Your task to perform on an android device: Open the calendar and show me this week's events? Image 0: 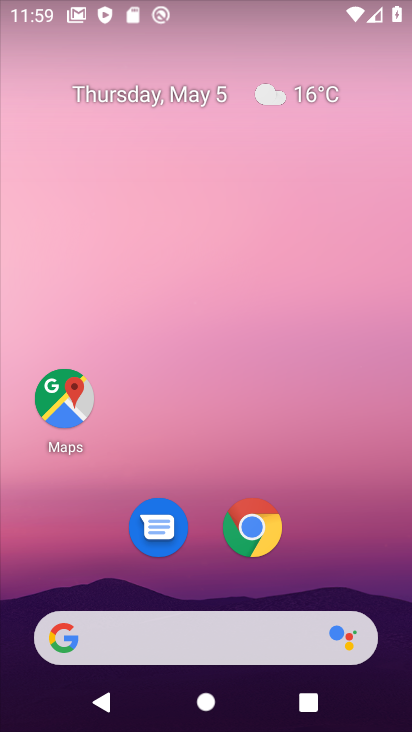
Step 0: drag from (305, 466) to (102, 69)
Your task to perform on an android device: Open the calendar and show me this week's events? Image 1: 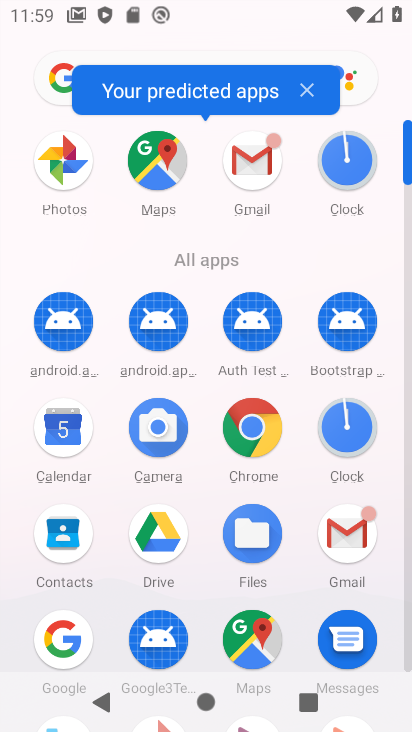
Step 1: click (61, 436)
Your task to perform on an android device: Open the calendar and show me this week's events? Image 2: 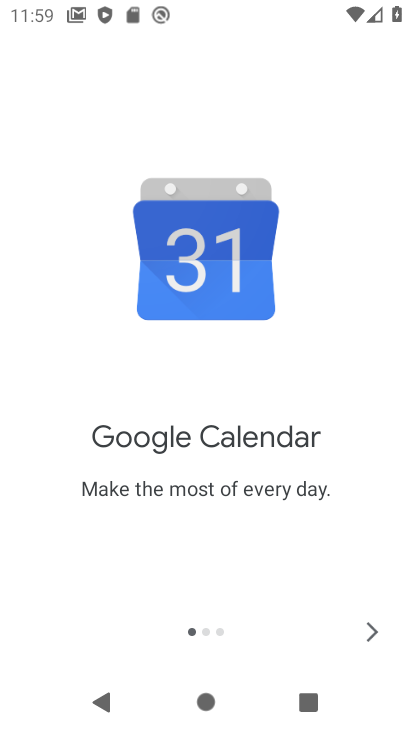
Step 2: click (356, 637)
Your task to perform on an android device: Open the calendar and show me this week's events? Image 3: 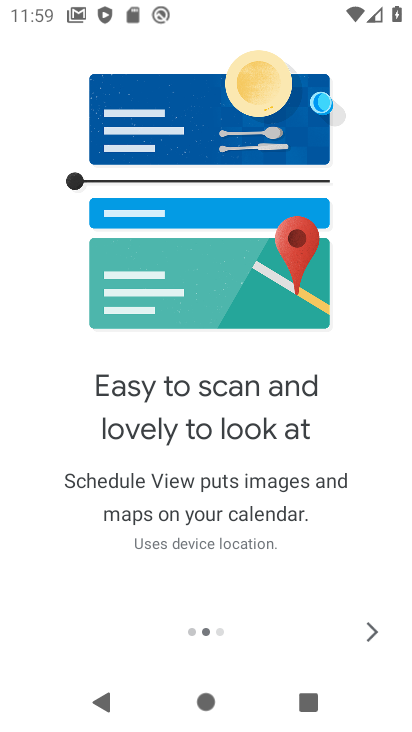
Step 3: click (369, 625)
Your task to perform on an android device: Open the calendar and show me this week's events? Image 4: 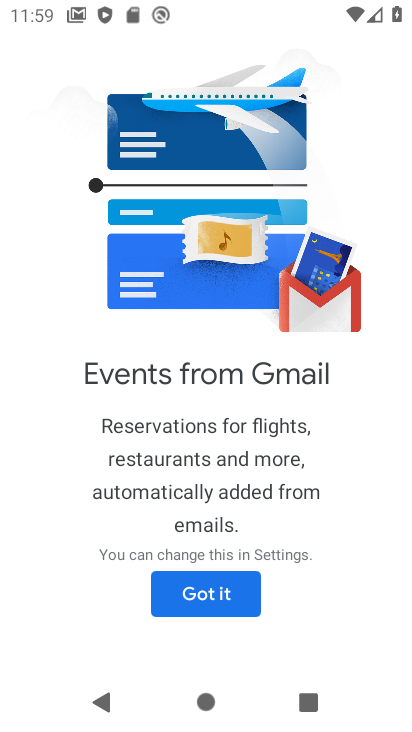
Step 4: click (222, 587)
Your task to perform on an android device: Open the calendar and show me this week's events? Image 5: 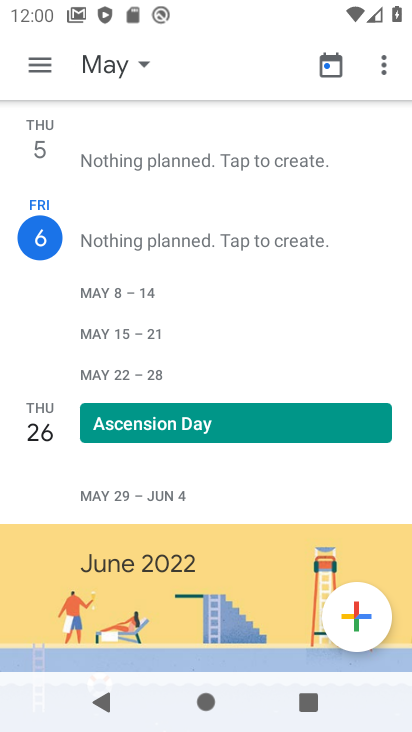
Step 5: click (44, 64)
Your task to perform on an android device: Open the calendar and show me this week's events? Image 6: 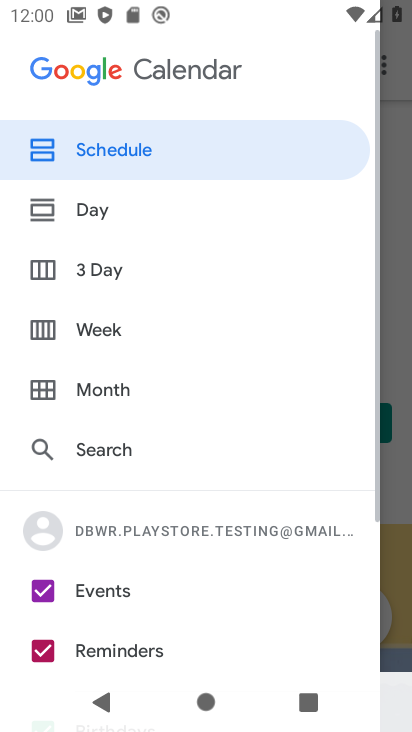
Step 6: drag from (92, 610) to (88, 284)
Your task to perform on an android device: Open the calendar and show me this week's events? Image 7: 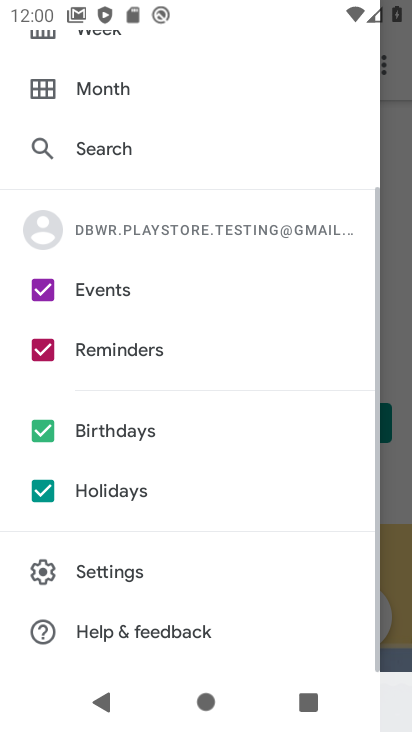
Step 7: click (46, 496)
Your task to perform on an android device: Open the calendar and show me this week's events? Image 8: 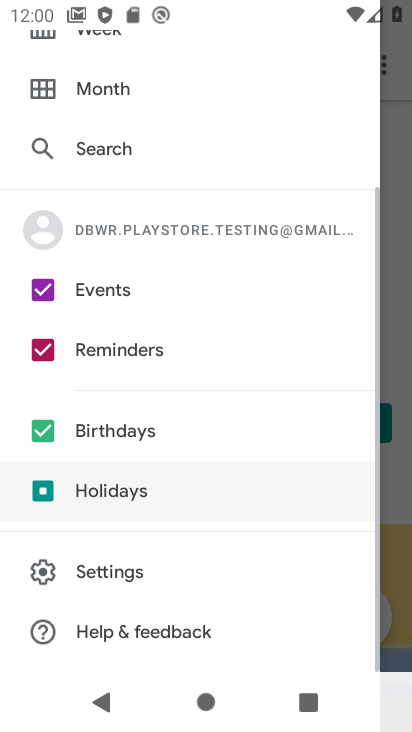
Step 8: click (42, 435)
Your task to perform on an android device: Open the calendar and show me this week's events? Image 9: 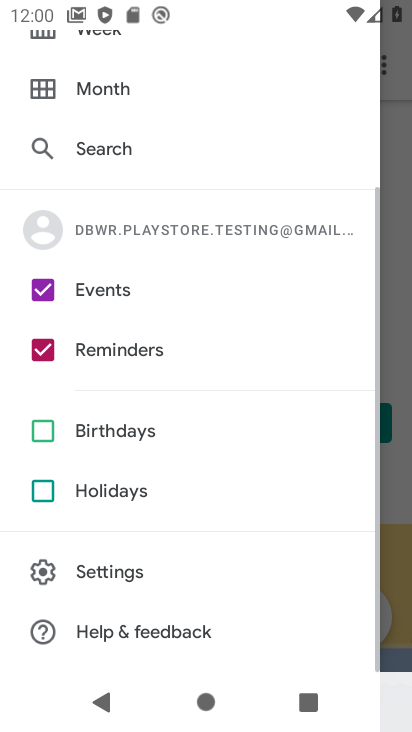
Step 9: click (42, 358)
Your task to perform on an android device: Open the calendar and show me this week's events? Image 10: 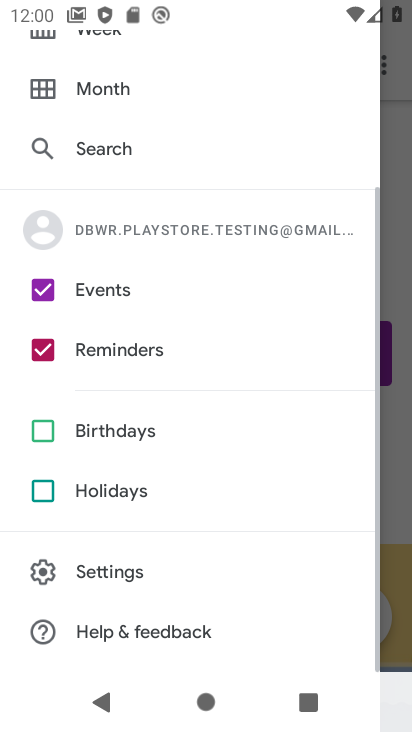
Step 10: click (44, 351)
Your task to perform on an android device: Open the calendar and show me this week's events? Image 11: 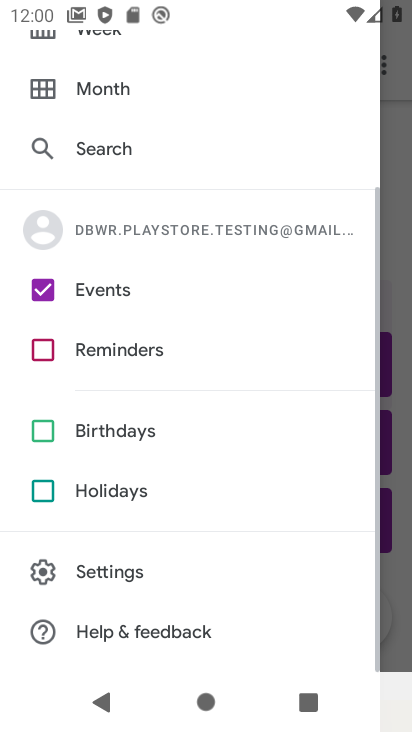
Step 11: drag from (210, 128) to (198, 484)
Your task to perform on an android device: Open the calendar and show me this week's events? Image 12: 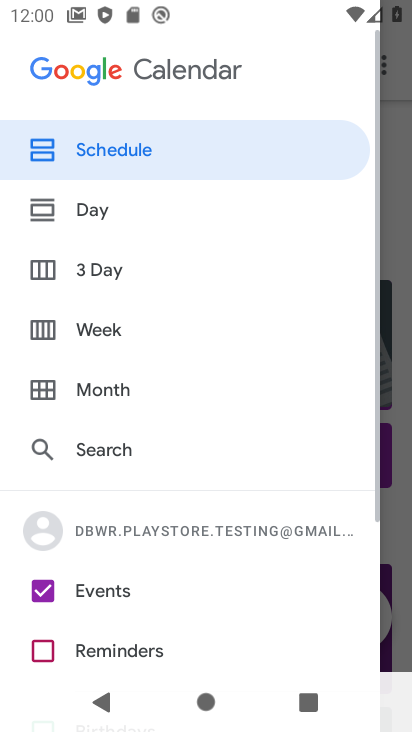
Step 12: click (79, 327)
Your task to perform on an android device: Open the calendar and show me this week's events? Image 13: 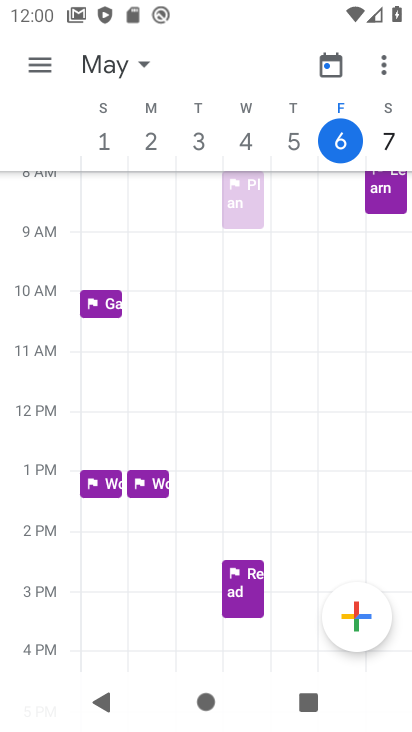
Step 13: click (385, 136)
Your task to perform on an android device: Open the calendar and show me this week's events? Image 14: 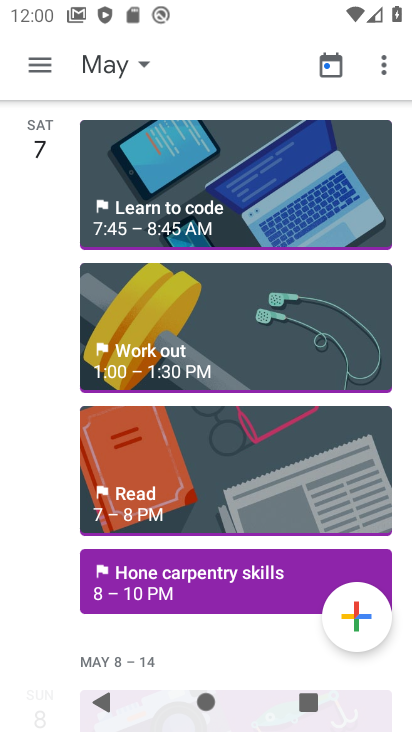
Step 14: task complete